Your task to perform on an android device: Set the phone to "Do not disturb". Image 0: 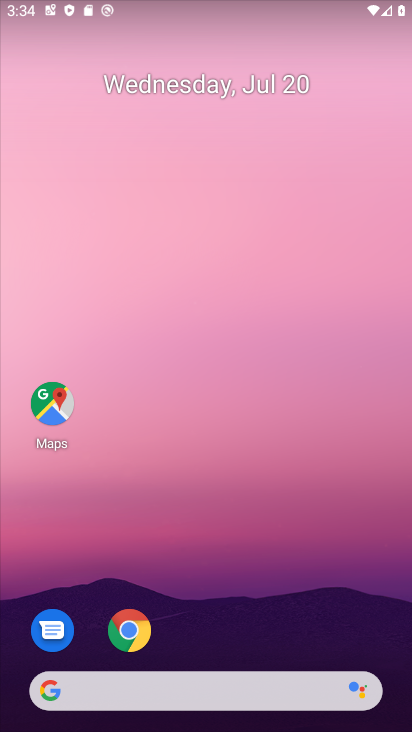
Step 0: drag from (211, 7) to (233, 464)
Your task to perform on an android device: Set the phone to "Do not disturb". Image 1: 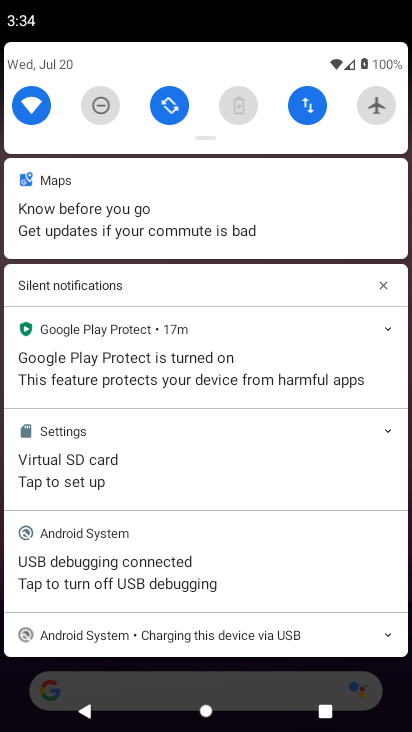
Step 1: click (100, 102)
Your task to perform on an android device: Set the phone to "Do not disturb". Image 2: 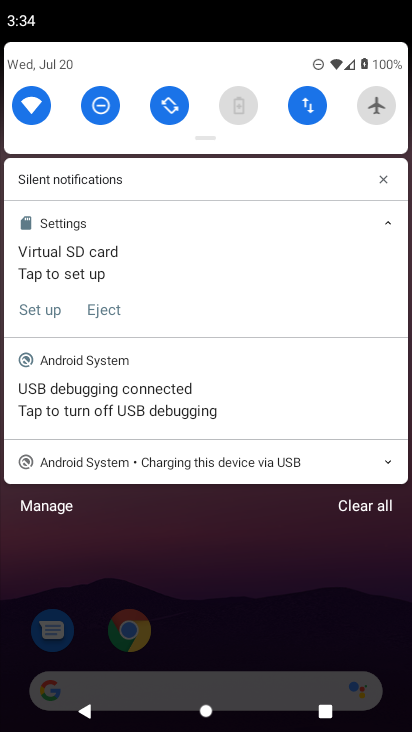
Step 2: task complete